Your task to perform on an android device: Go to privacy settings Image 0: 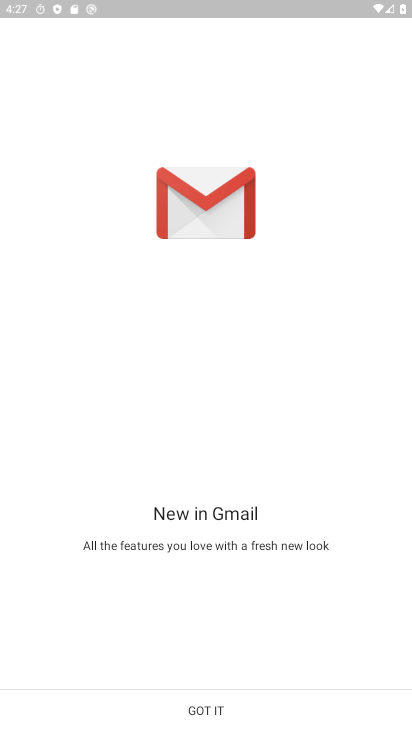
Step 0: click (211, 706)
Your task to perform on an android device: Go to privacy settings Image 1: 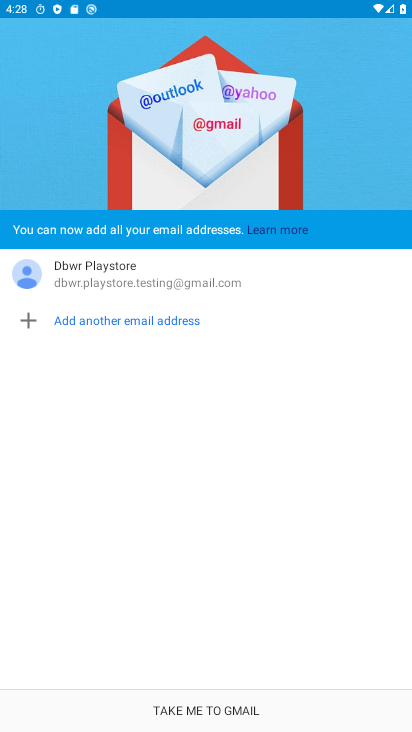
Step 1: press home button
Your task to perform on an android device: Go to privacy settings Image 2: 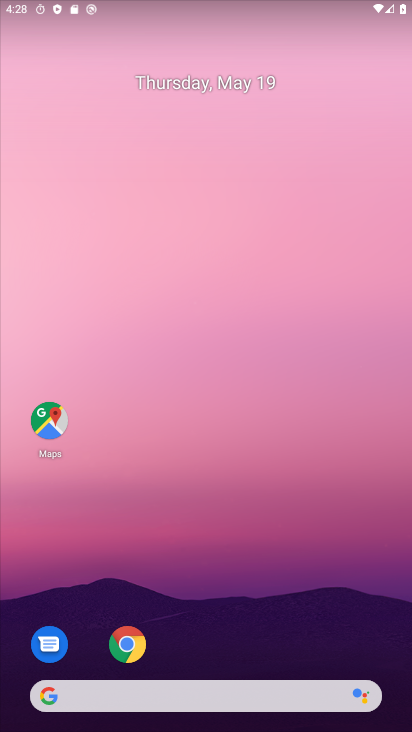
Step 2: drag from (216, 651) to (173, 216)
Your task to perform on an android device: Go to privacy settings Image 3: 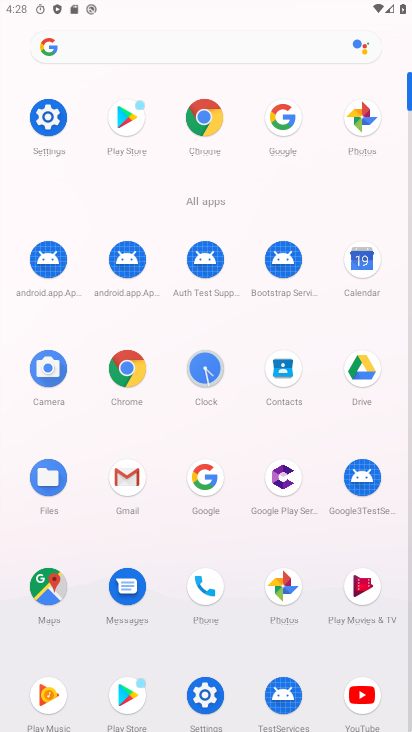
Step 3: click (47, 121)
Your task to perform on an android device: Go to privacy settings Image 4: 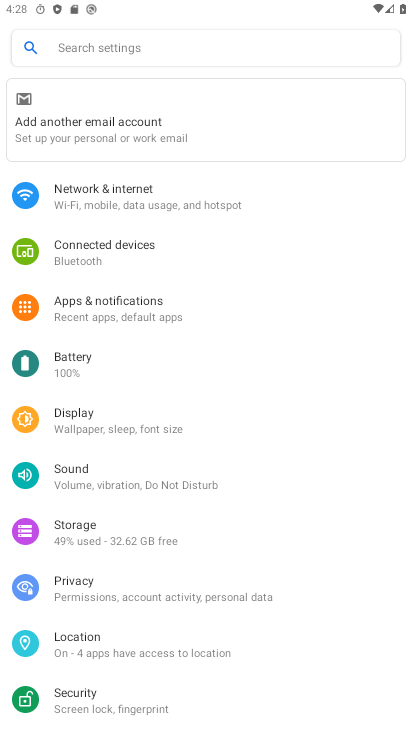
Step 4: click (125, 584)
Your task to perform on an android device: Go to privacy settings Image 5: 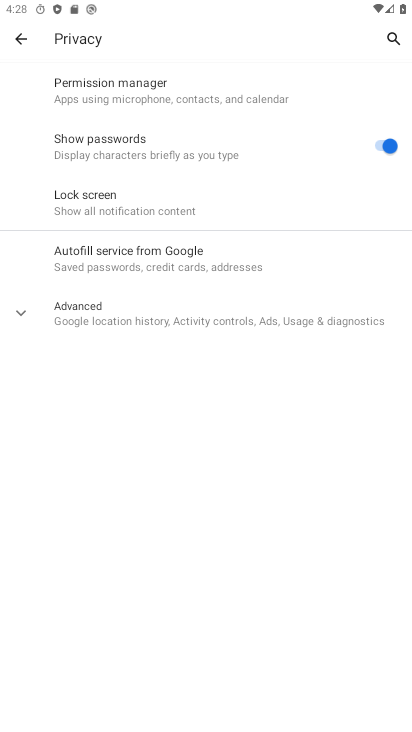
Step 5: click (117, 313)
Your task to perform on an android device: Go to privacy settings Image 6: 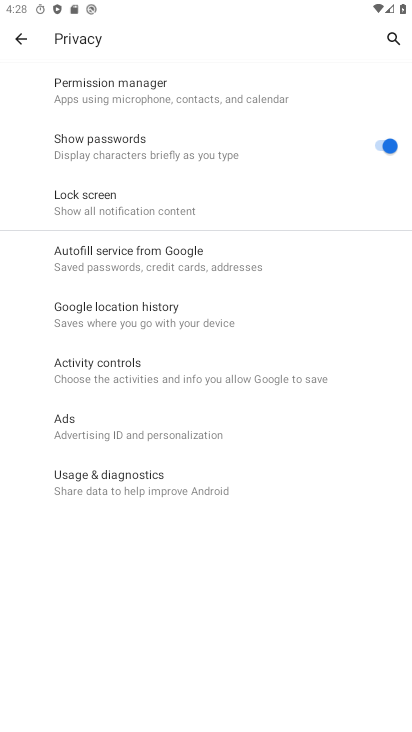
Step 6: task complete